Your task to perform on an android device: check battery use Image 0: 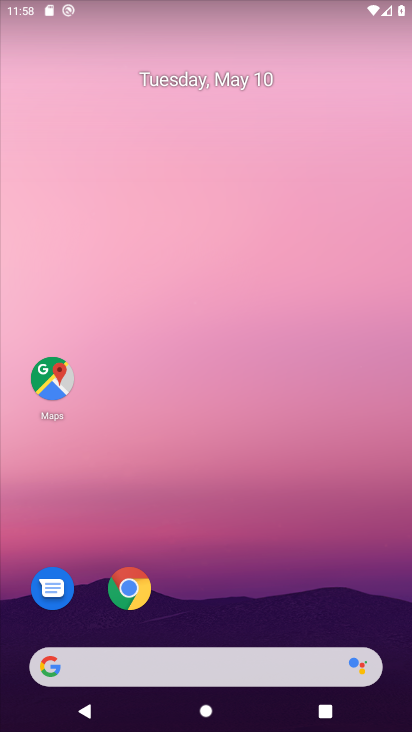
Step 0: drag from (210, 651) to (164, 245)
Your task to perform on an android device: check battery use Image 1: 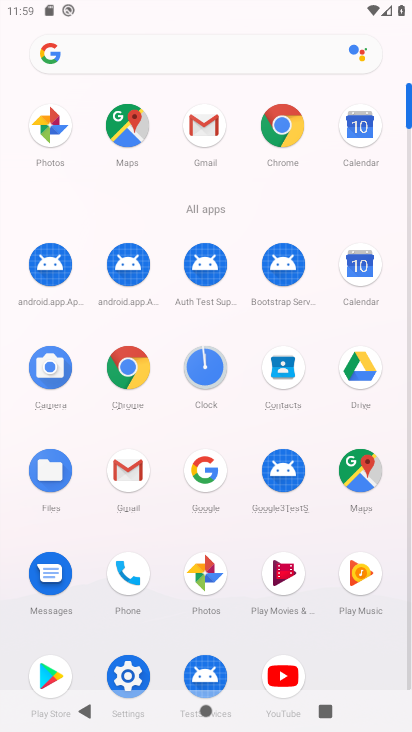
Step 1: click (116, 676)
Your task to perform on an android device: check battery use Image 2: 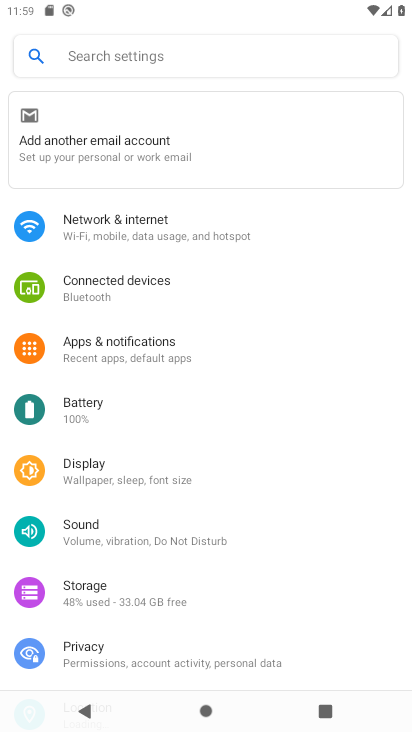
Step 2: click (88, 410)
Your task to perform on an android device: check battery use Image 3: 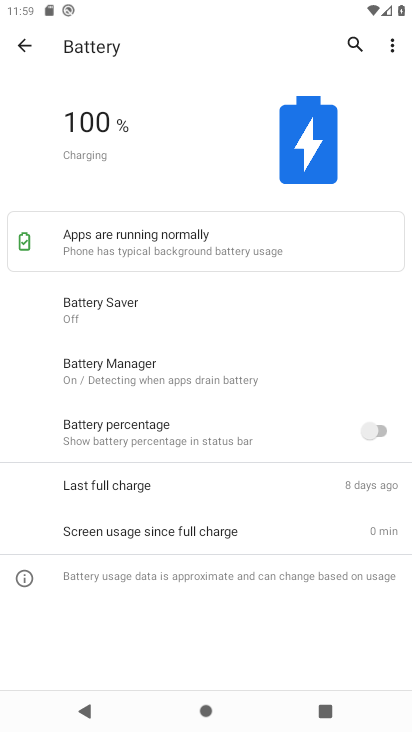
Step 3: click (393, 44)
Your task to perform on an android device: check battery use Image 4: 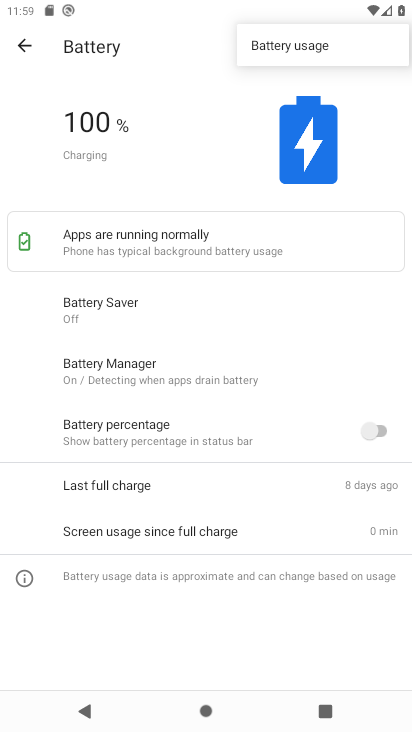
Step 4: click (279, 43)
Your task to perform on an android device: check battery use Image 5: 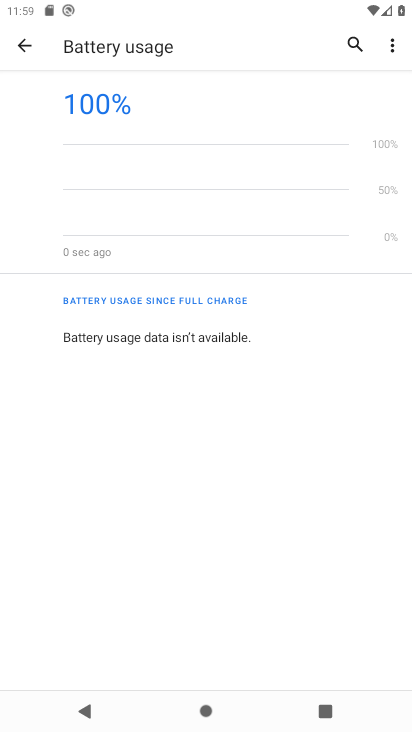
Step 5: task complete